Your task to perform on an android device: What's on my calendar today? Image 0: 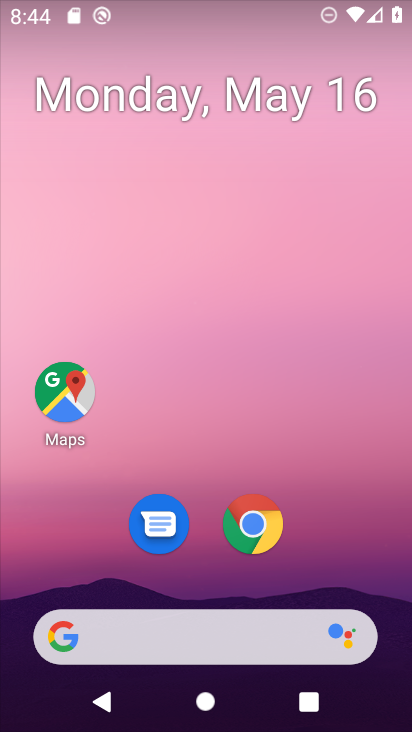
Step 0: drag from (327, 534) to (299, 91)
Your task to perform on an android device: What's on my calendar today? Image 1: 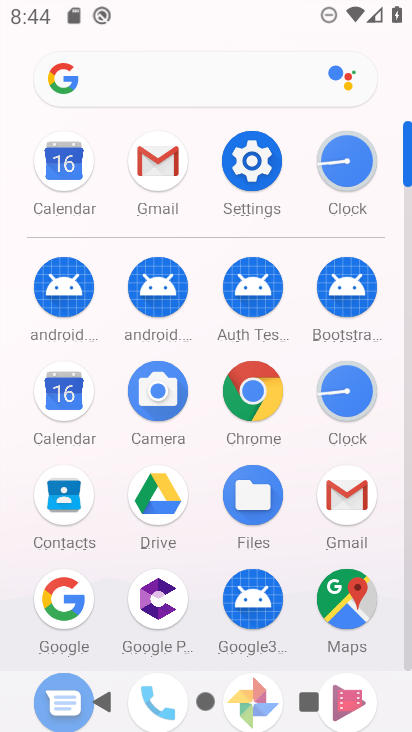
Step 1: click (69, 163)
Your task to perform on an android device: What's on my calendar today? Image 2: 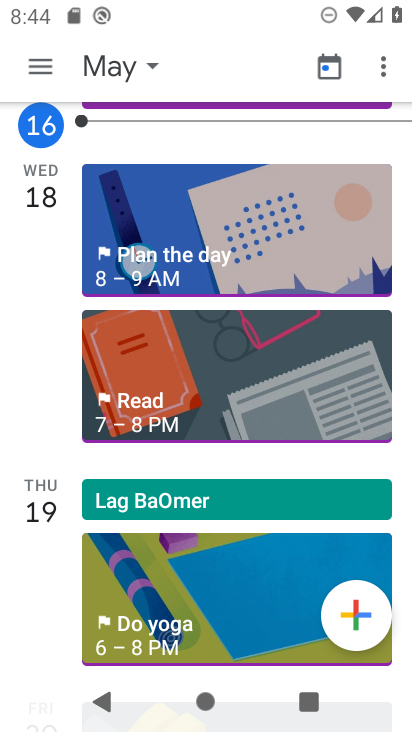
Step 2: task complete